Your task to perform on an android device: open chrome and create a bookmark for the current page Image 0: 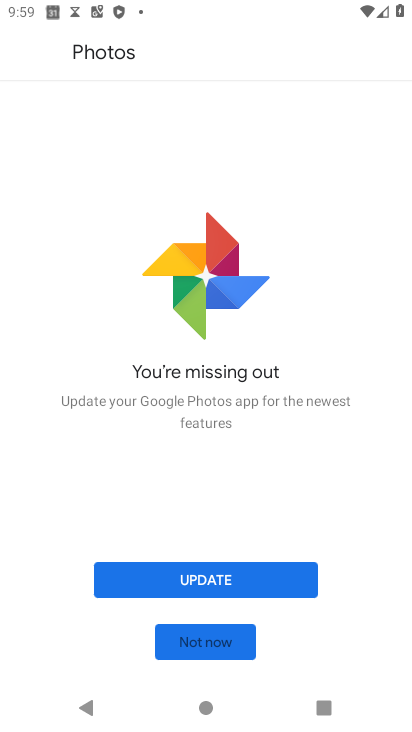
Step 0: press back button
Your task to perform on an android device: open chrome and create a bookmark for the current page Image 1: 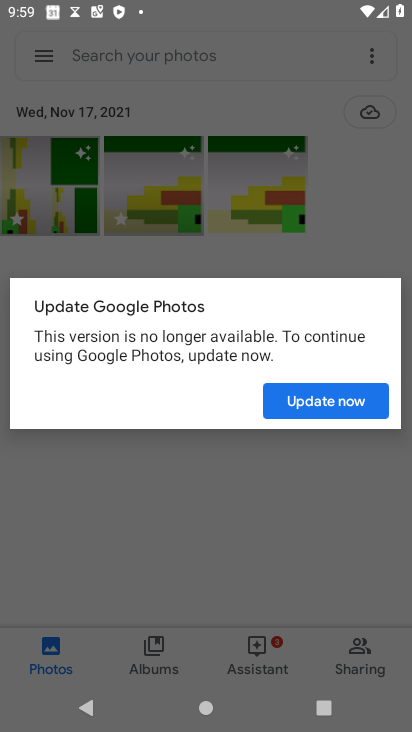
Step 1: press back button
Your task to perform on an android device: open chrome and create a bookmark for the current page Image 2: 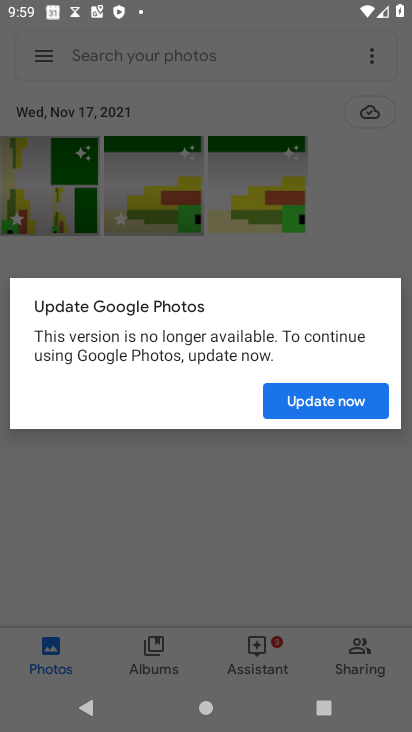
Step 2: press home button
Your task to perform on an android device: open chrome and create a bookmark for the current page Image 3: 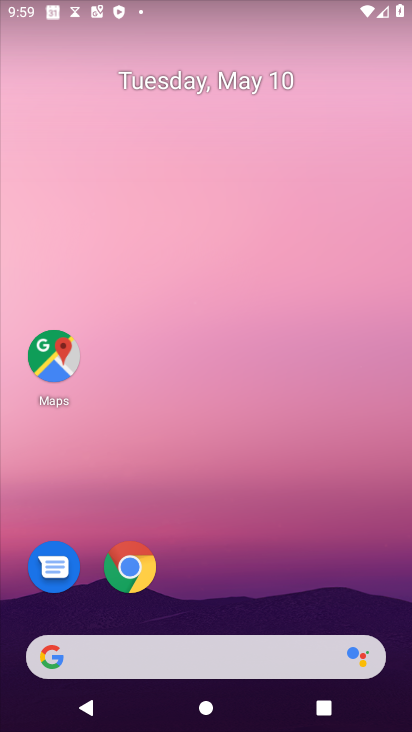
Step 3: click (130, 557)
Your task to perform on an android device: open chrome and create a bookmark for the current page Image 4: 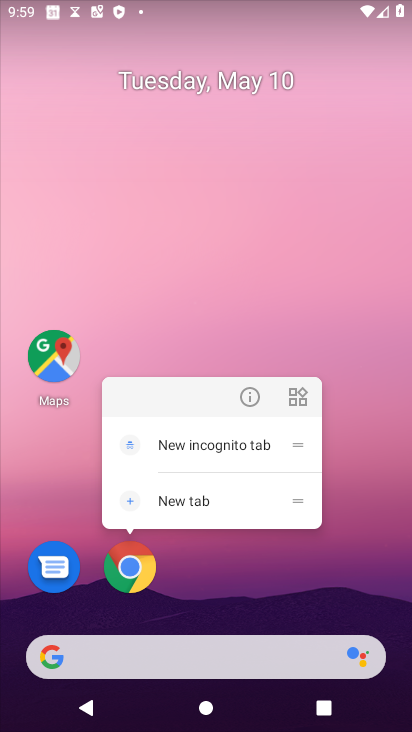
Step 4: click (208, 571)
Your task to perform on an android device: open chrome and create a bookmark for the current page Image 5: 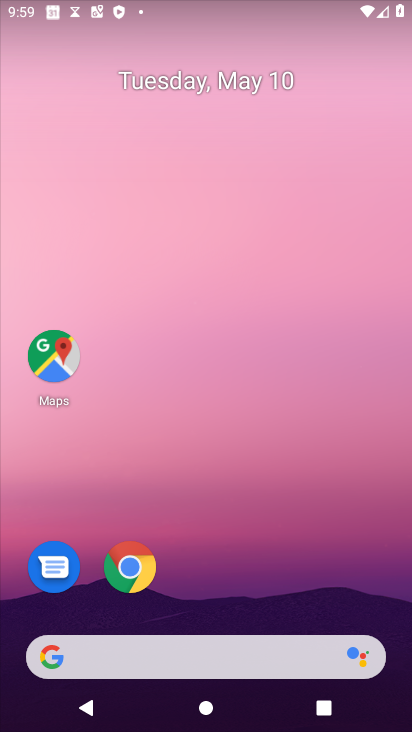
Step 5: click (130, 566)
Your task to perform on an android device: open chrome and create a bookmark for the current page Image 6: 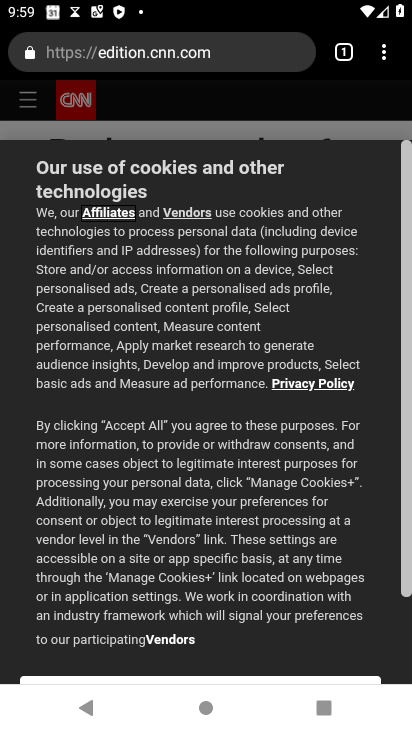
Step 6: click (374, 53)
Your task to perform on an android device: open chrome and create a bookmark for the current page Image 7: 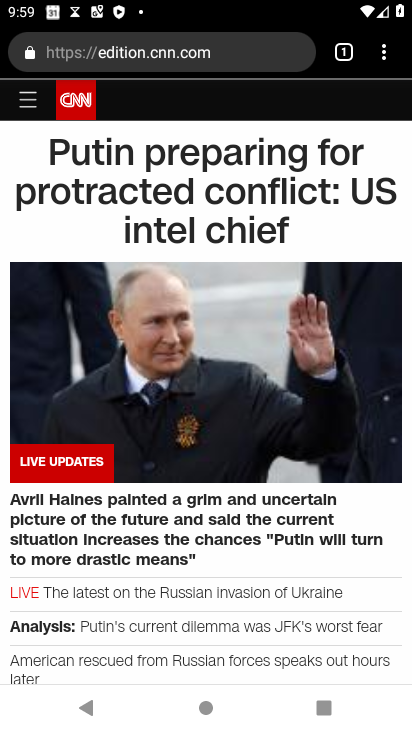
Step 7: click (366, 53)
Your task to perform on an android device: open chrome and create a bookmark for the current page Image 8: 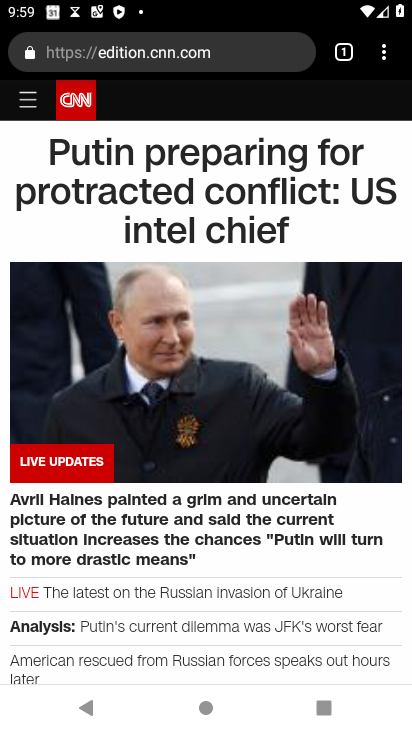
Step 8: click (363, 49)
Your task to perform on an android device: open chrome and create a bookmark for the current page Image 9: 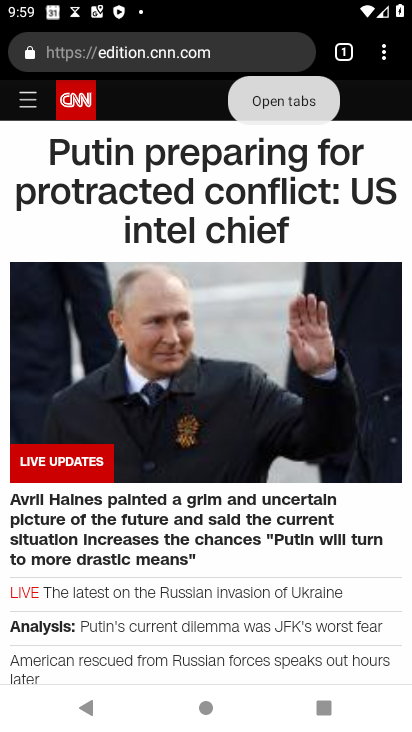
Step 9: click (385, 44)
Your task to perform on an android device: open chrome and create a bookmark for the current page Image 10: 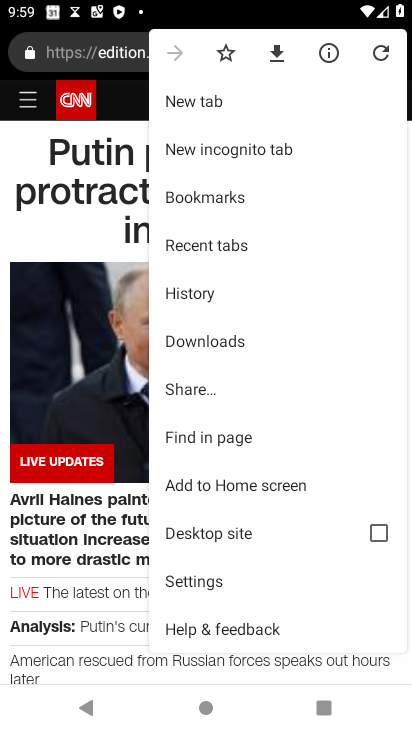
Step 10: click (230, 59)
Your task to perform on an android device: open chrome and create a bookmark for the current page Image 11: 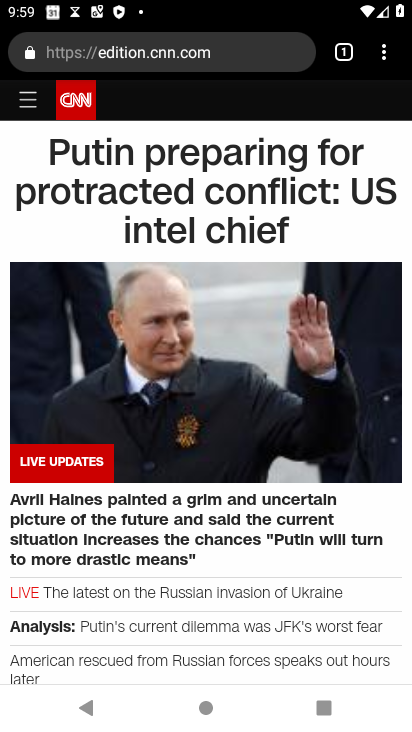
Step 11: task complete